Your task to perform on an android device: Open ESPN.com Image 0: 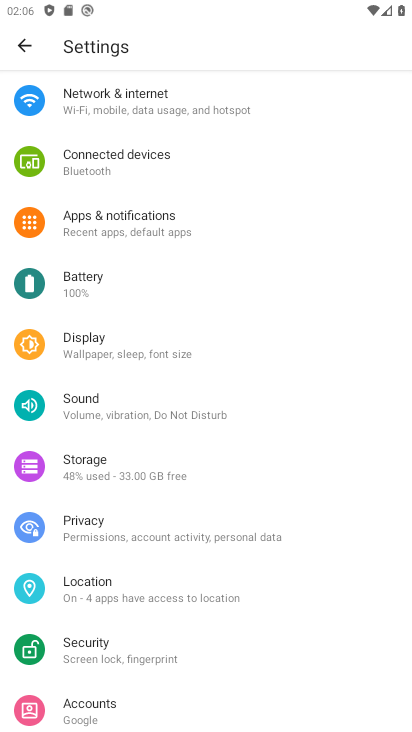
Step 0: press home button
Your task to perform on an android device: Open ESPN.com Image 1: 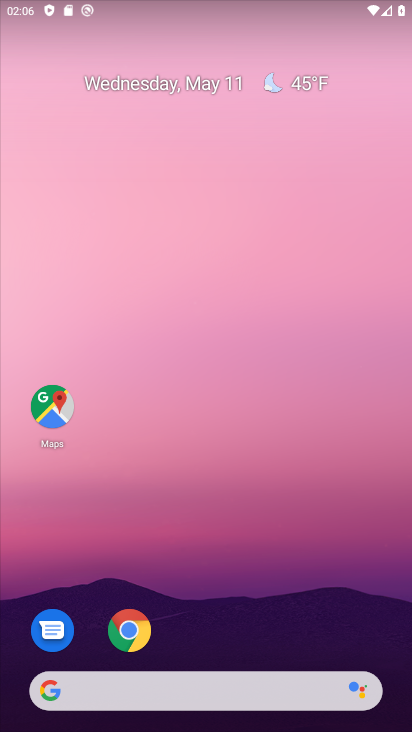
Step 1: click (125, 625)
Your task to perform on an android device: Open ESPN.com Image 2: 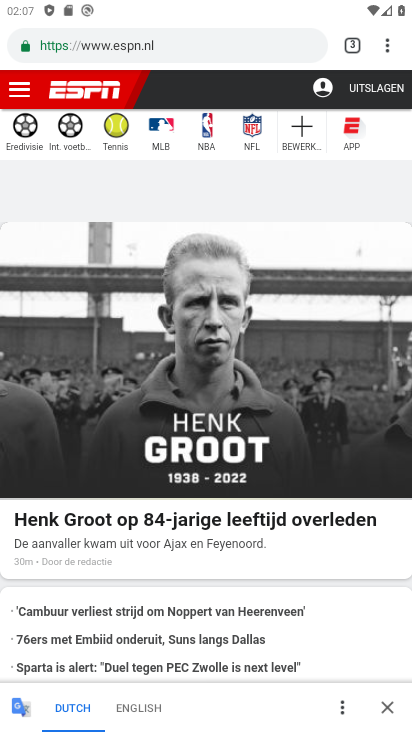
Step 2: task complete